Your task to perform on an android device: open chrome and create a bookmark for the current page Image 0: 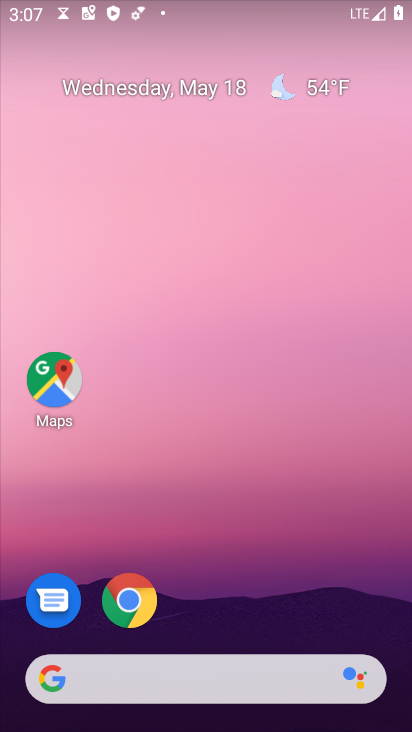
Step 0: press home button
Your task to perform on an android device: open chrome and create a bookmark for the current page Image 1: 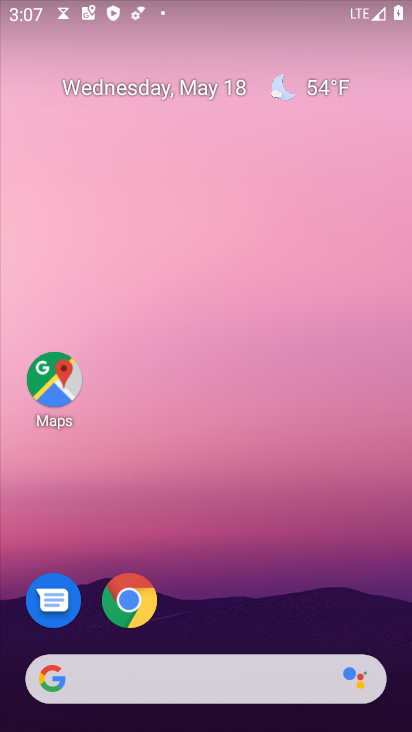
Step 1: click (136, 605)
Your task to perform on an android device: open chrome and create a bookmark for the current page Image 2: 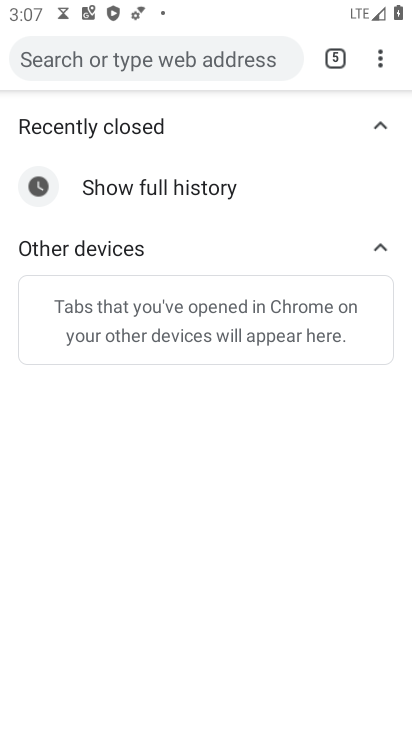
Step 2: click (374, 78)
Your task to perform on an android device: open chrome and create a bookmark for the current page Image 3: 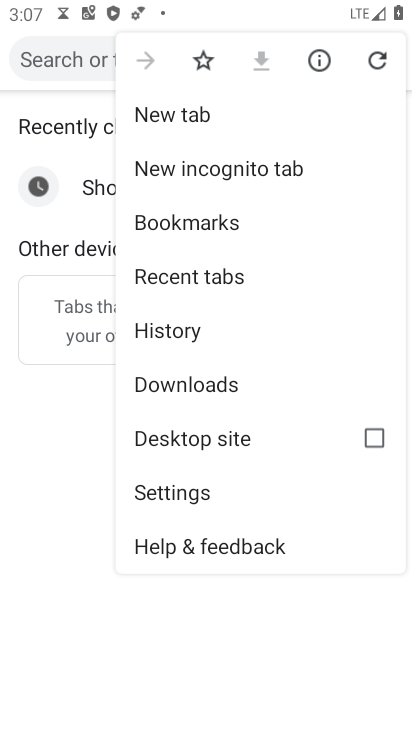
Step 3: click (202, 59)
Your task to perform on an android device: open chrome and create a bookmark for the current page Image 4: 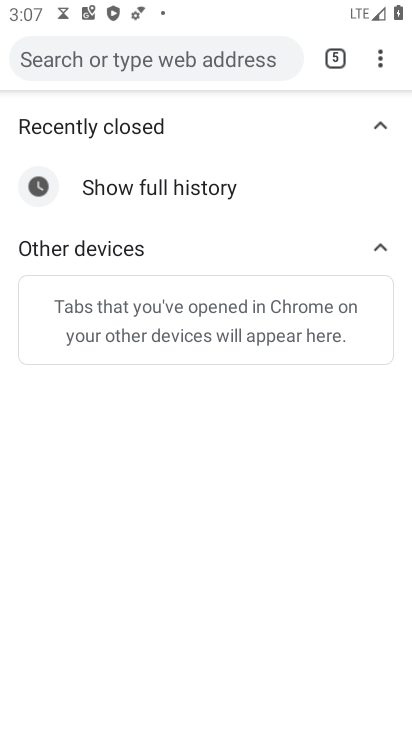
Step 4: task complete